Your task to perform on an android device: snooze an email in the gmail app Image 0: 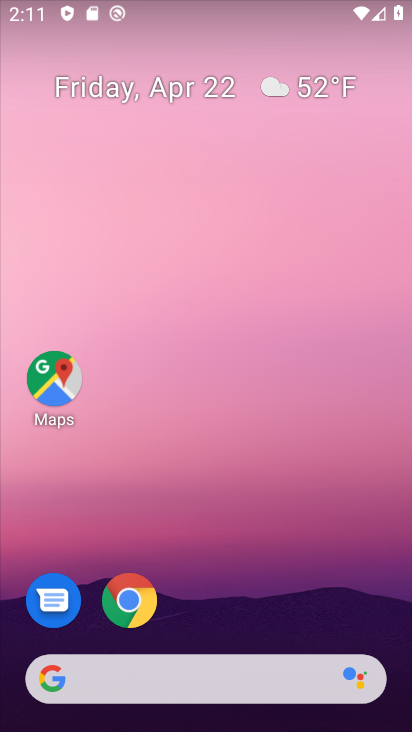
Step 0: drag from (224, 574) to (173, 34)
Your task to perform on an android device: snooze an email in the gmail app Image 1: 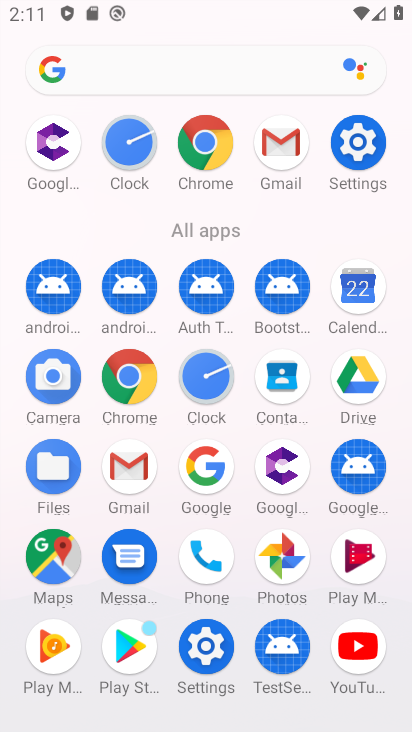
Step 1: click (285, 135)
Your task to perform on an android device: snooze an email in the gmail app Image 2: 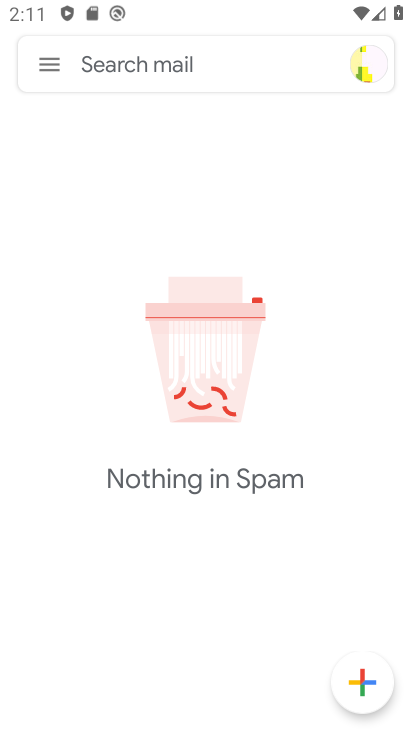
Step 2: click (49, 61)
Your task to perform on an android device: snooze an email in the gmail app Image 3: 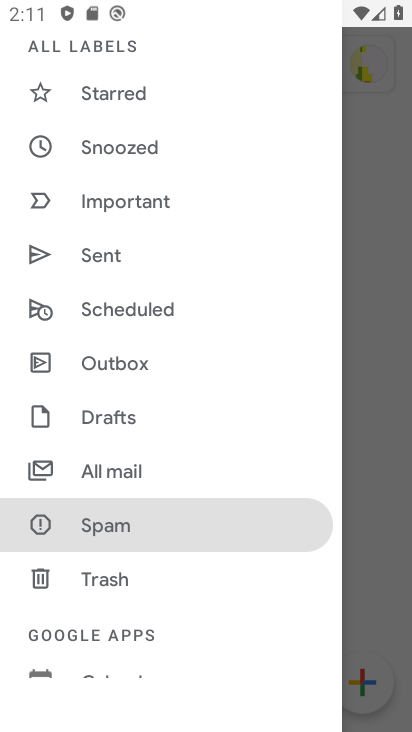
Step 3: drag from (180, 241) to (188, 466)
Your task to perform on an android device: snooze an email in the gmail app Image 4: 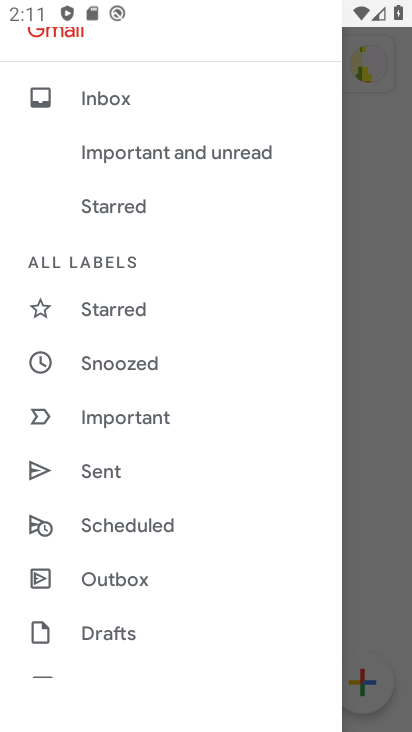
Step 4: drag from (188, 461) to (226, 146)
Your task to perform on an android device: snooze an email in the gmail app Image 5: 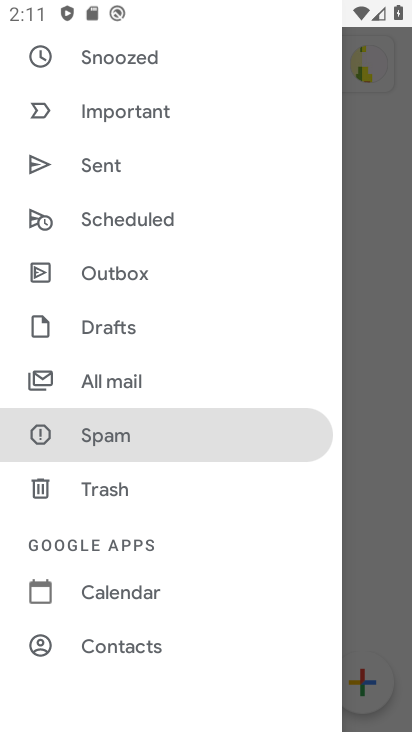
Step 5: click (125, 377)
Your task to perform on an android device: snooze an email in the gmail app Image 6: 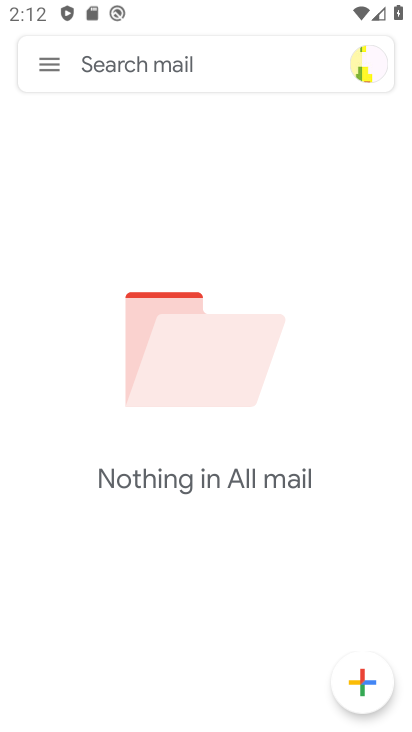
Step 6: task complete